Your task to perform on an android device: Do I have any events this weekend? Image 0: 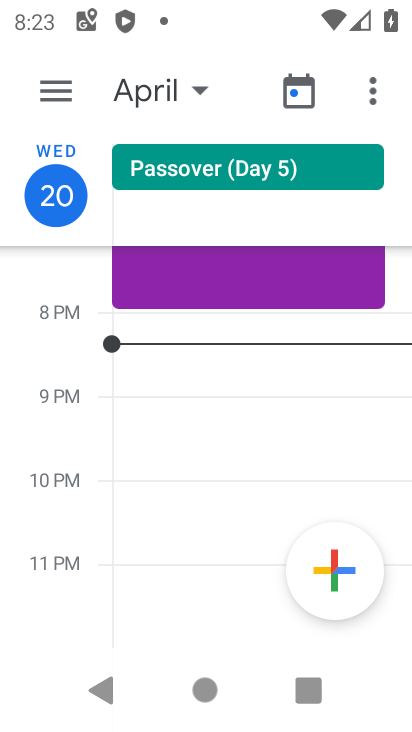
Step 0: click (201, 84)
Your task to perform on an android device: Do I have any events this weekend? Image 1: 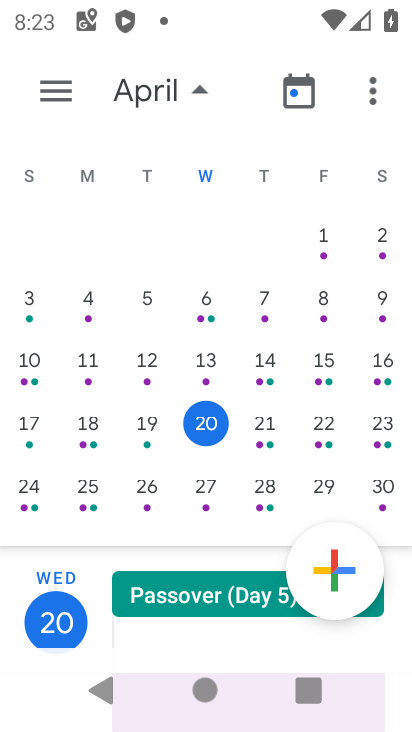
Step 1: click (383, 425)
Your task to perform on an android device: Do I have any events this weekend? Image 2: 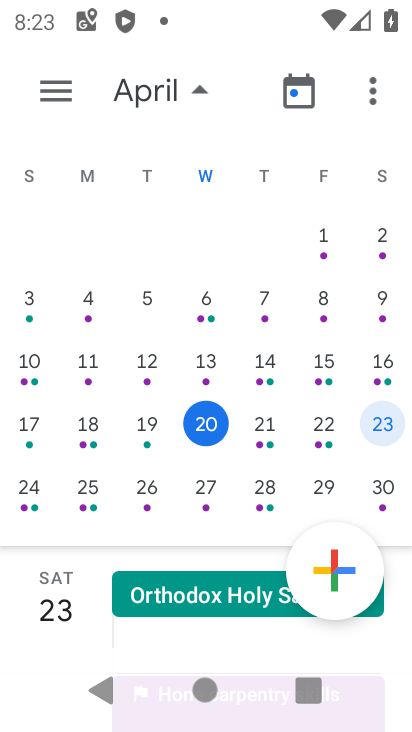
Step 2: drag from (215, 568) to (225, 280)
Your task to perform on an android device: Do I have any events this weekend? Image 3: 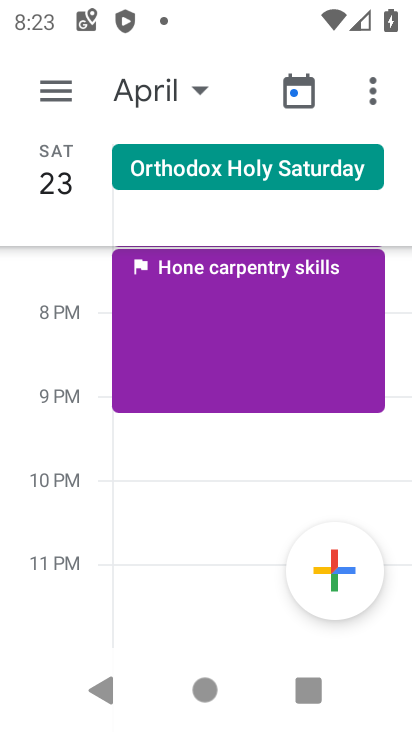
Step 3: click (283, 286)
Your task to perform on an android device: Do I have any events this weekend? Image 4: 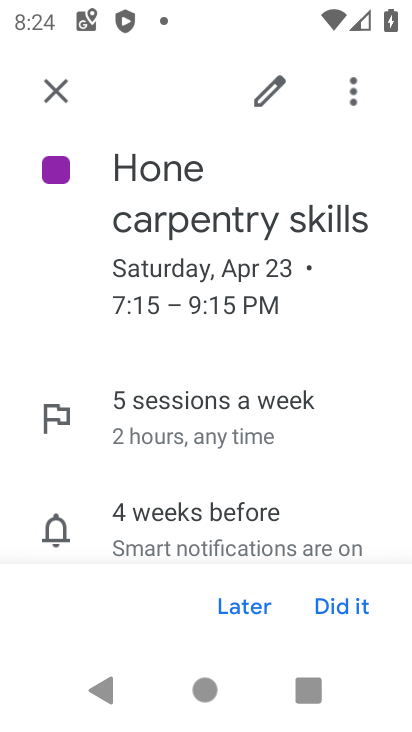
Step 4: task complete